Your task to perform on an android device: turn on location history Image 0: 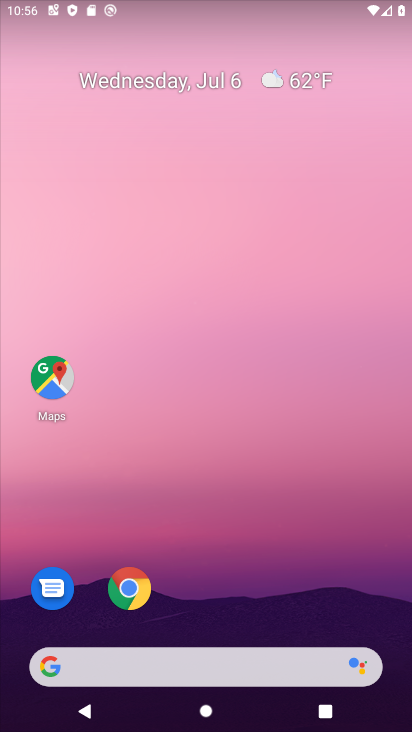
Step 0: drag from (381, 600) to (333, 146)
Your task to perform on an android device: turn on location history Image 1: 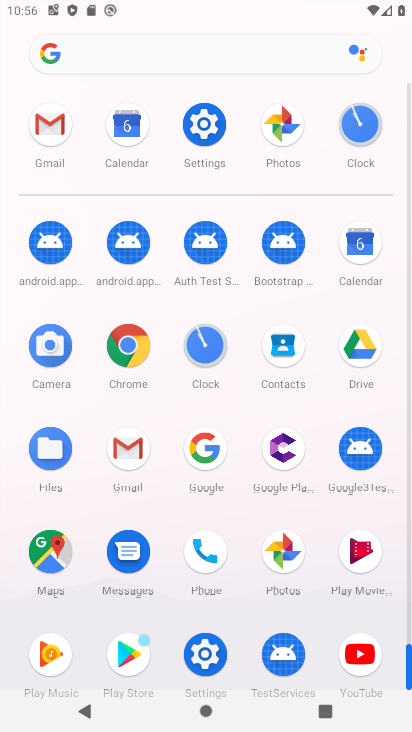
Step 1: click (48, 551)
Your task to perform on an android device: turn on location history Image 2: 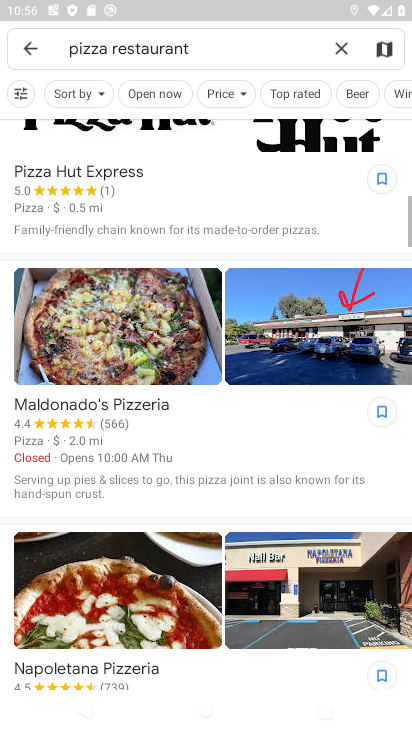
Step 2: click (340, 47)
Your task to perform on an android device: turn on location history Image 3: 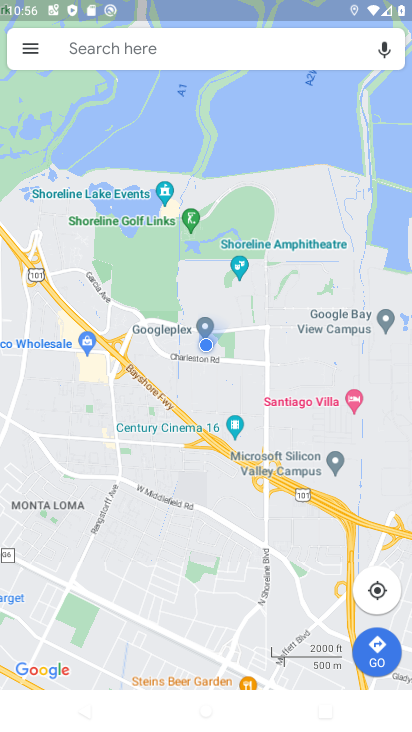
Step 3: click (29, 46)
Your task to perform on an android device: turn on location history Image 4: 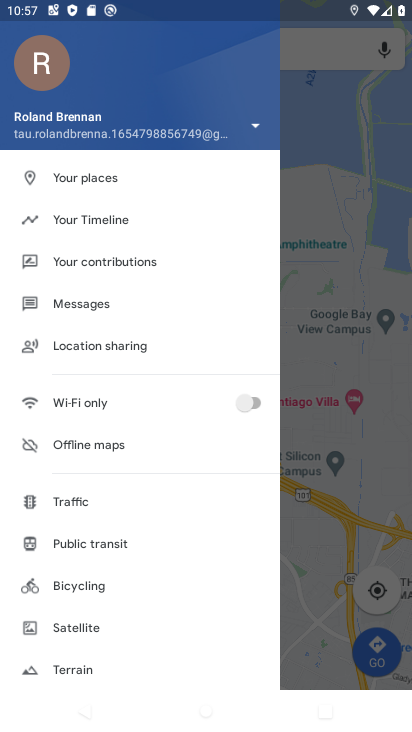
Step 4: drag from (146, 614) to (175, 353)
Your task to perform on an android device: turn on location history Image 5: 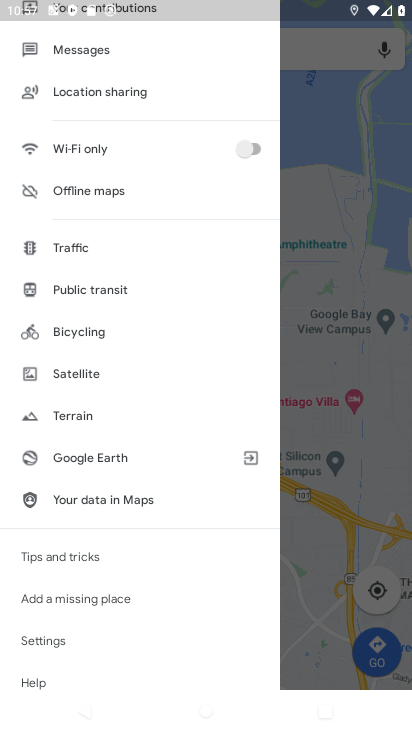
Step 5: click (40, 639)
Your task to perform on an android device: turn on location history Image 6: 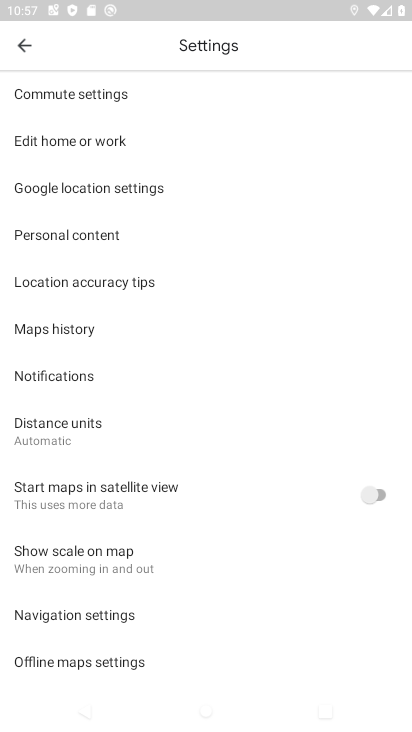
Step 6: click (69, 238)
Your task to perform on an android device: turn on location history Image 7: 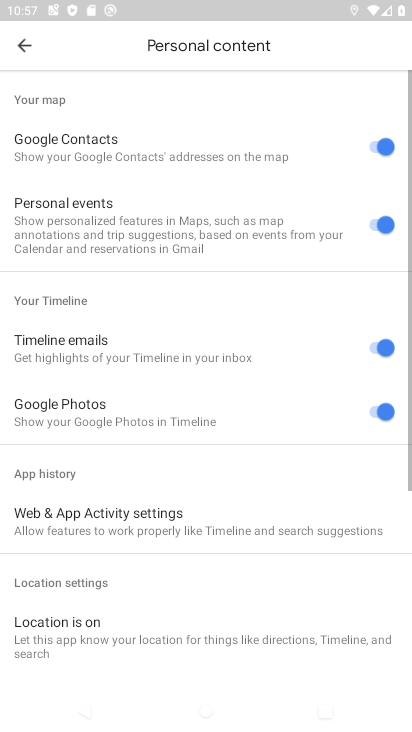
Step 7: drag from (208, 558) to (213, 148)
Your task to perform on an android device: turn on location history Image 8: 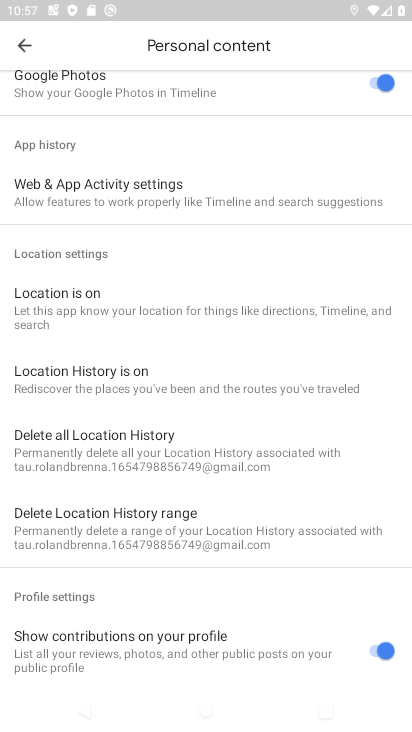
Step 8: click (76, 377)
Your task to perform on an android device: turn on location history Image 9: 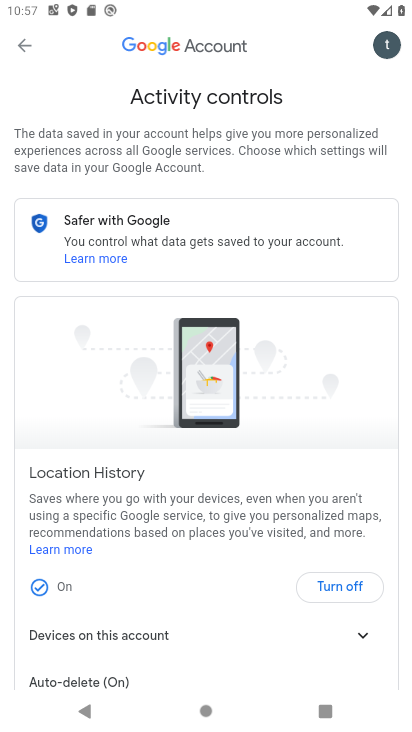
Step 9: task complete